Your task to perform on an android device: move an email to a new category in the gmail app Image 0: 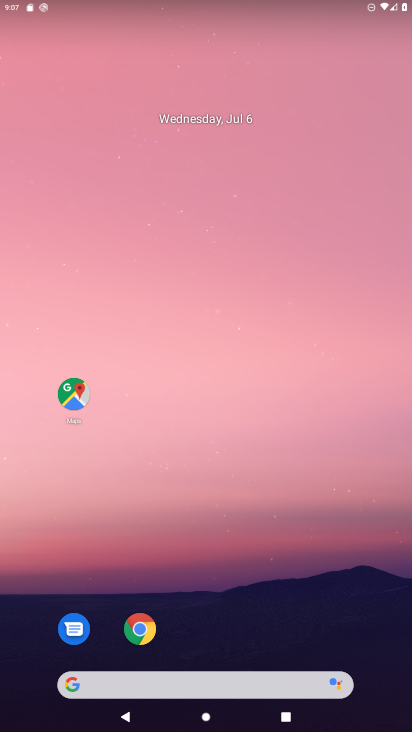
Step 0: press home button
Your task to perform on an android device: move an email to a new category in the gmail app Image 1: 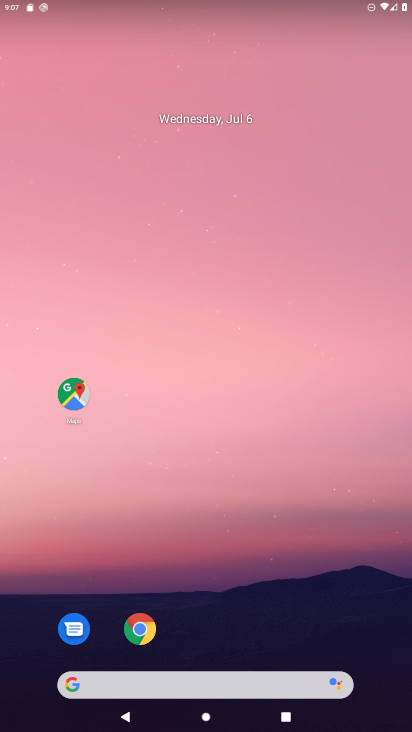
Step 1: drag from (274, 675) to (273, 59)
Your task to perform on an android device: move an email to a new category in the gmail app Image 2: 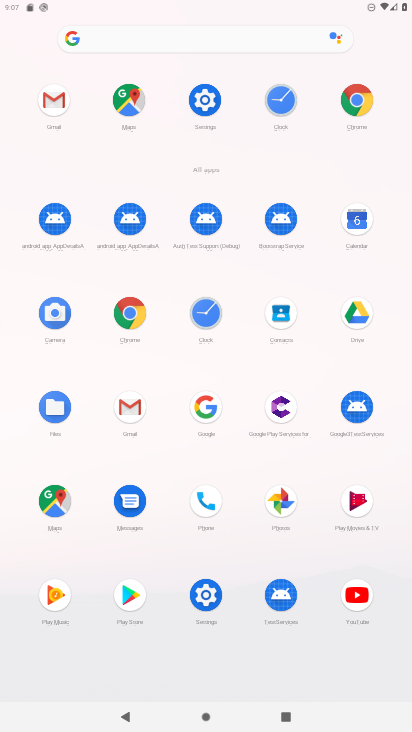
Step 2: click (123, 399)
Your task to perform on an android device: move an email to a new category in the gmail app Image 3: 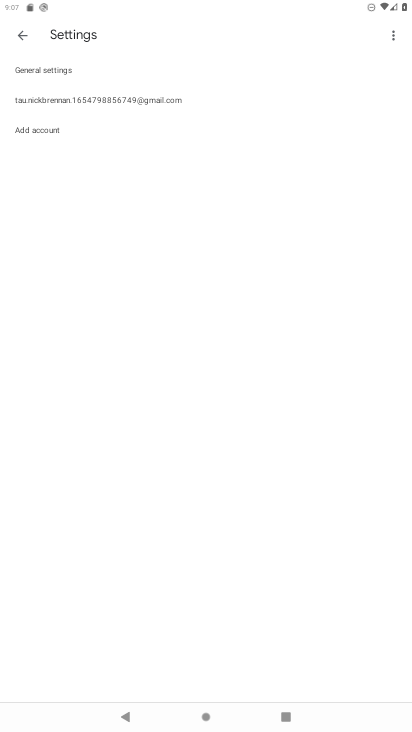
Step 3: task complete